Your task to perform on an android device: Go to display settings Image 0: 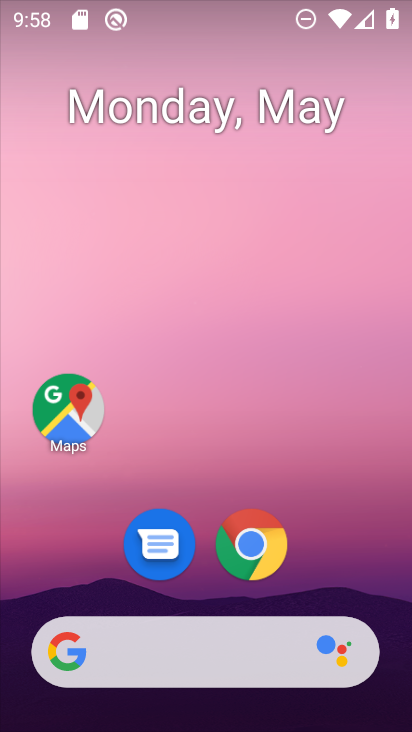
Step 0: drag from (340, 583) to (201, 236)
Your task to perform on an android device: Go to display settings Image 1: 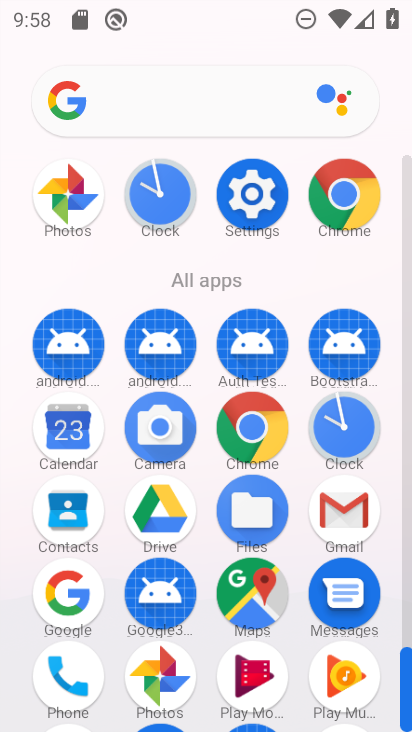
Step 1: click (260, 194)
Your task to perform on an android device: Go to display settings Image 2: 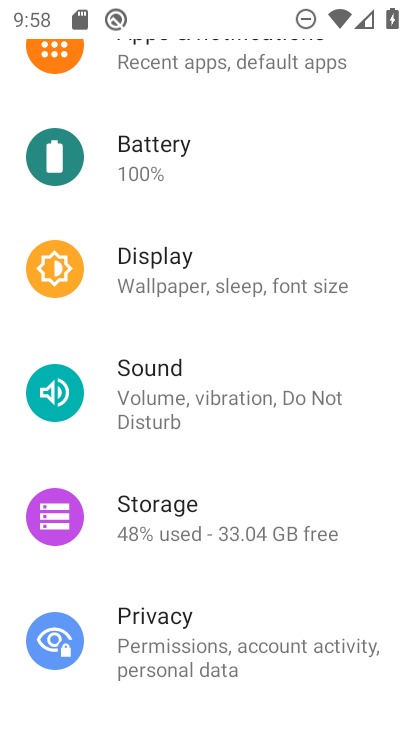
Step 2: click (241, 264)
Your task to perform on an android device: Go to display settings Image 3: 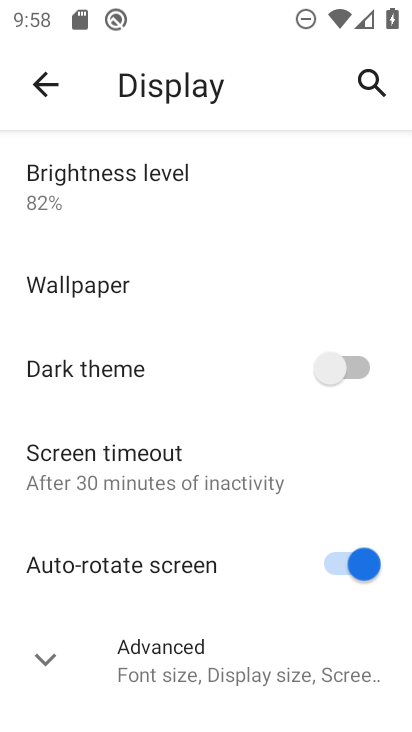
Step 3: click (141, 663)
Your task to perform on an android device: Go to display settings Image 4: 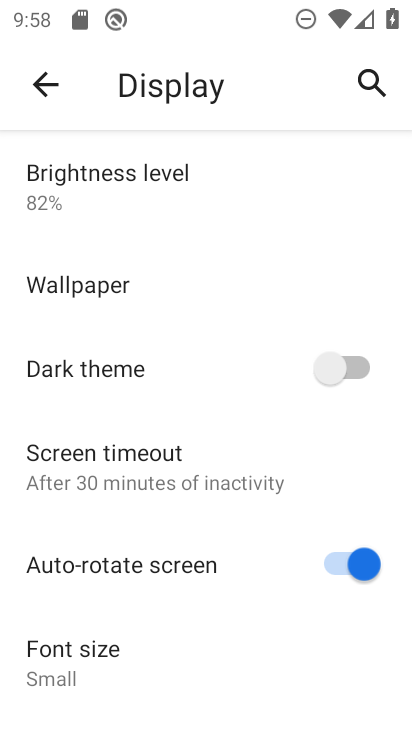
Step 4: task complete